Your task to perform on an android device: Go to network settings Image 0: 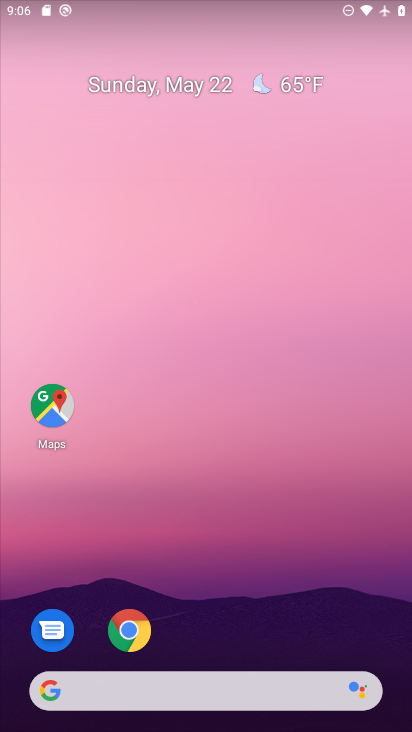
Step 0: press home button
Your task to perform on an android device: Go to network settings Image 1: 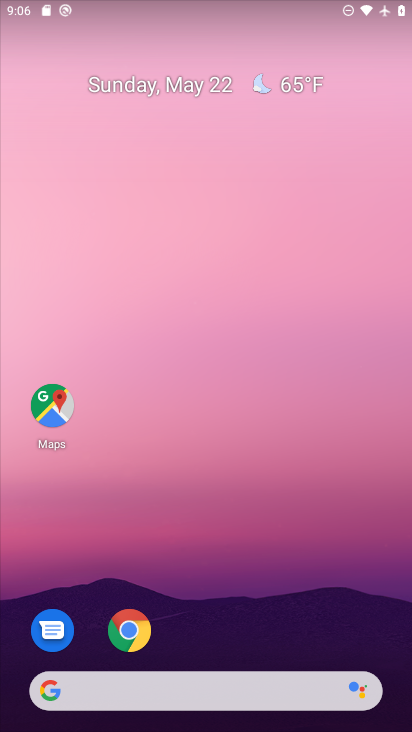
Step 1: drag from (108, 681) to (289, 0)
Your task to perform on an android device: Go to network settings Image 2: 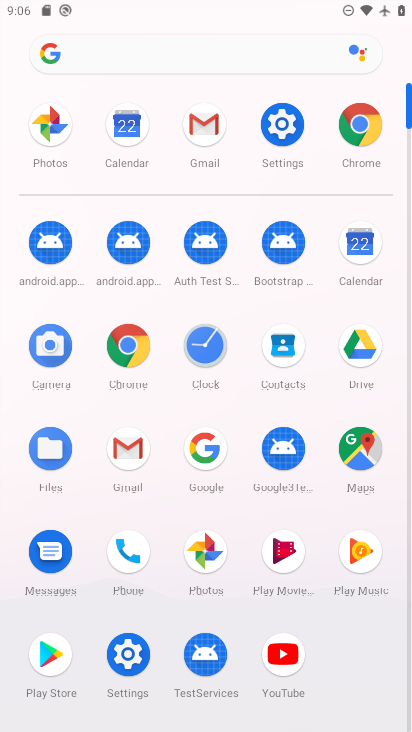
Step 2: click (277, 134)
Your task to perform on an android device: Go to network settings Image 3: 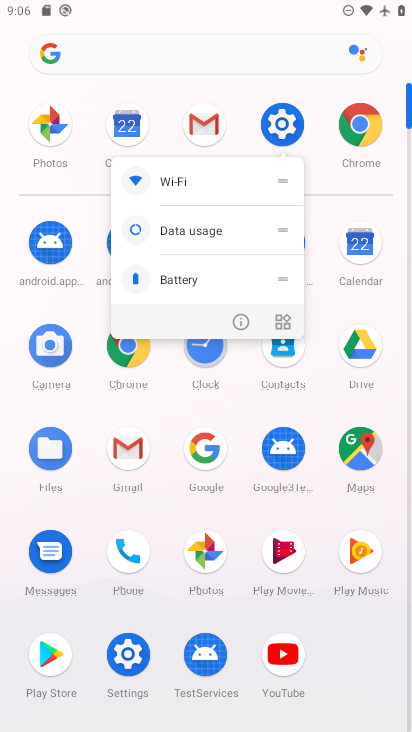
Step 3: click (282, 127)
Your task to perform on an android device: Go to network settings Image 4: 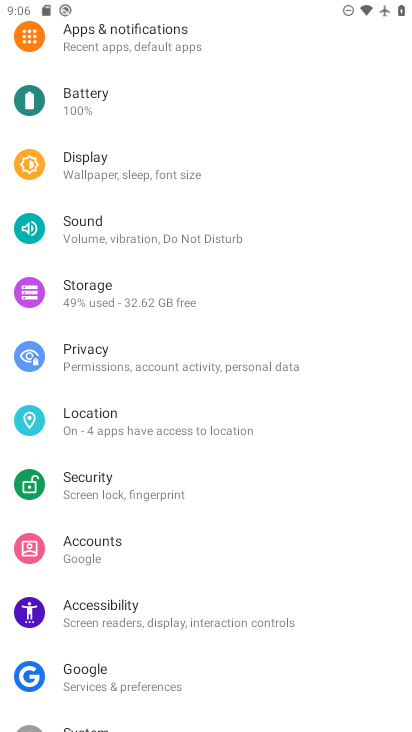
Step 4: drag from (300, 92) to (295, 632)
Your task to perform on an android device: Go to network settings Image 5: 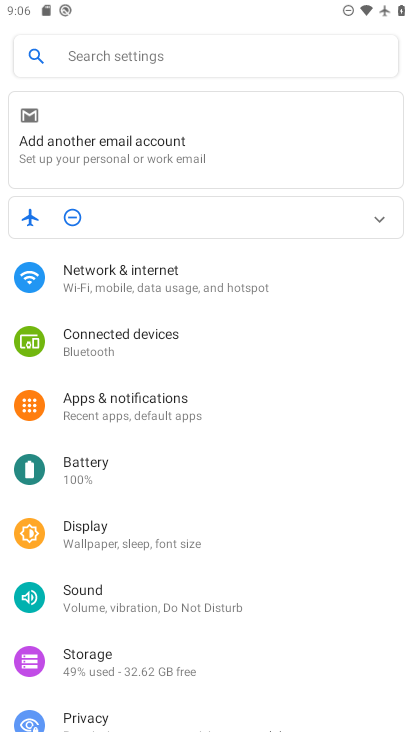
Step 5: click (168, 277)
Your task to perform on an android device: Go to network settings Image 6: 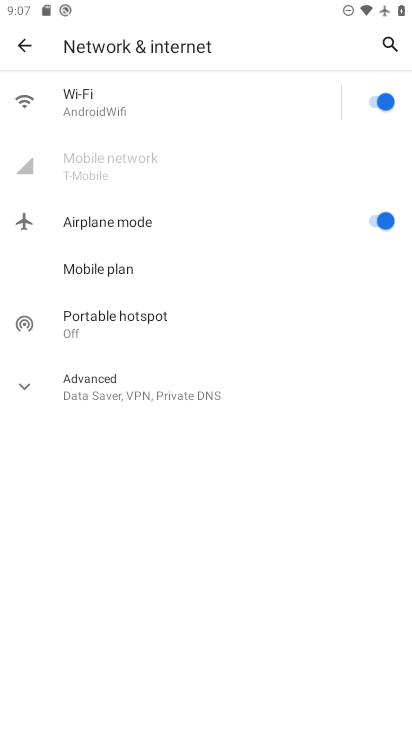
Step 6: task complete